Your task to perform on an android device: Show me popular videos on Youtube Image 0: 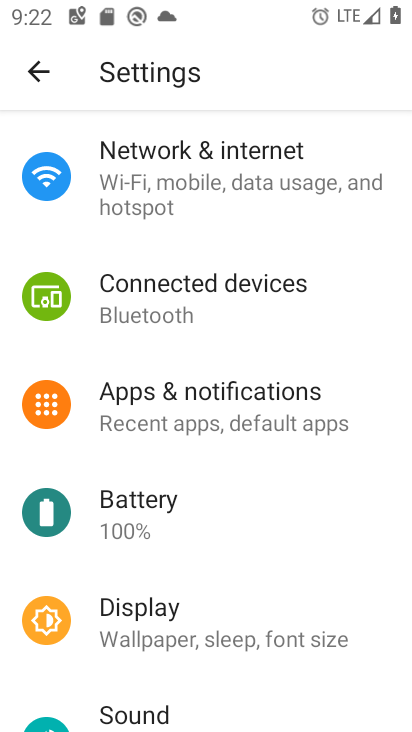
Step 0: press home button
Your task to perform on an android device: Show me popular videos on Youtube Image 1: 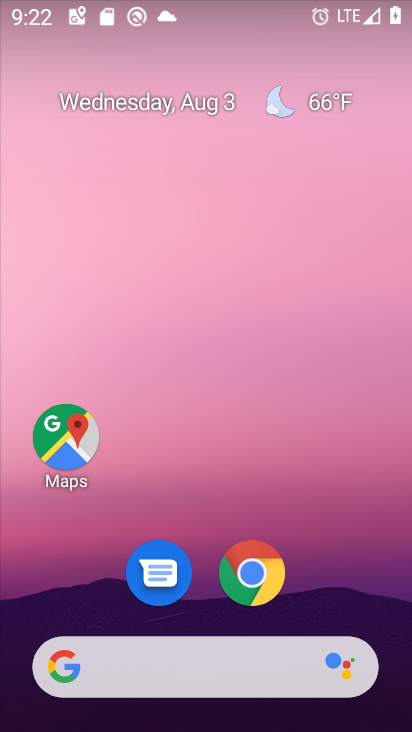
Step 1: drag from (335, 577) to (341, 39)
Your task to perform on an android device: Show me popular videos on Youtube Image 2: 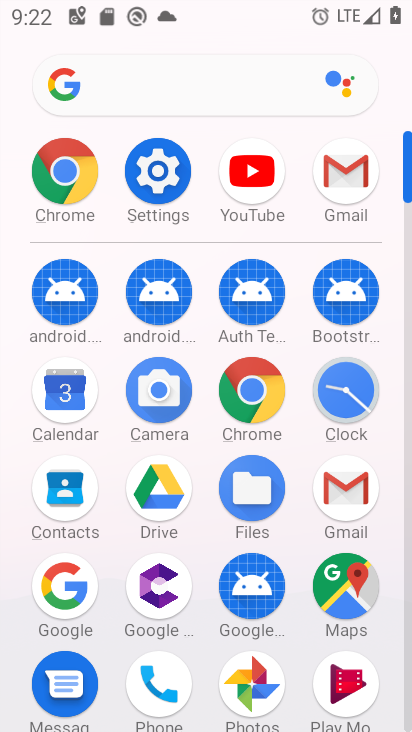
Step 2: click (251, 172)
Your task to perform on an android device: Show me popular videos on Youtube Image 3: 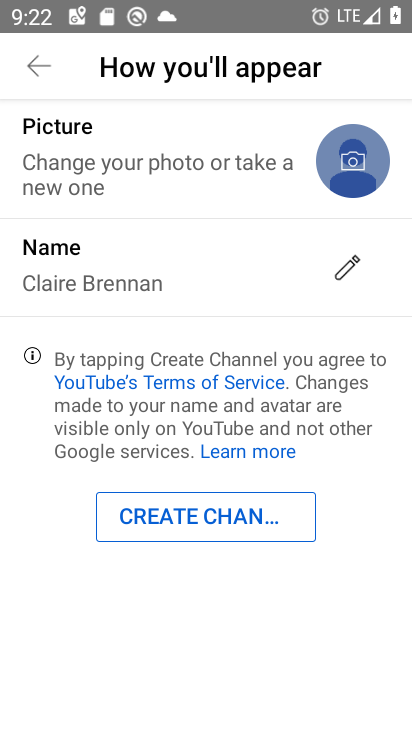
Step 3: click (39, 68)
Your task to perform on an android device: Show me popular videos on Youtube Image 4: 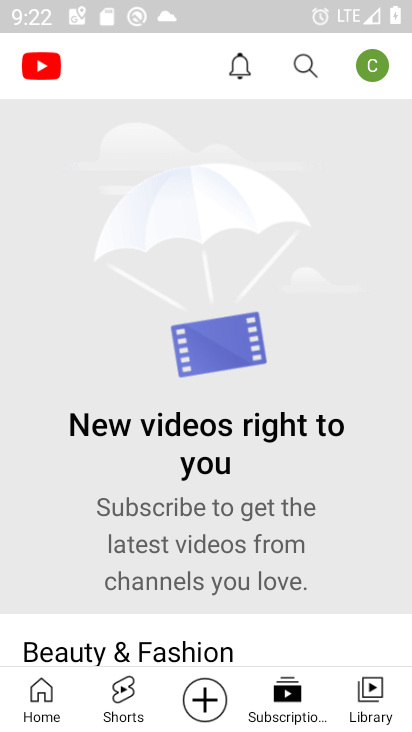
Step 4: click (36, 696)
Your task to perform on an android device: Show me popular videos on Youtube Image 5: 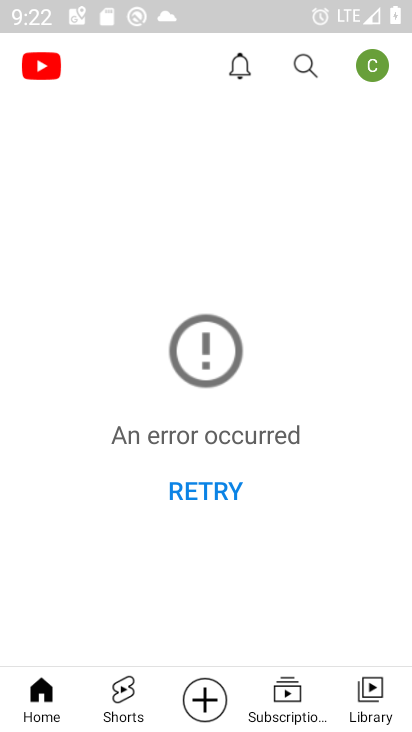
Step 5: task complete